Your task to perform on an android device: allow cookies in the chrome app Image 0: 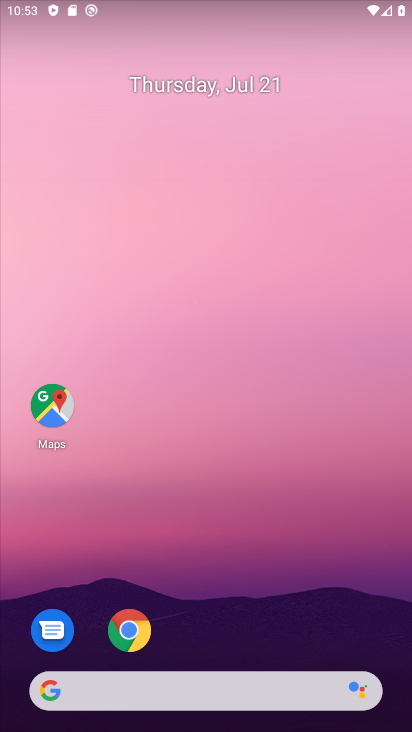
Step 0: click (129, 625)
Your task to perform on an android device: allow cookies in the chrome app Image 1: 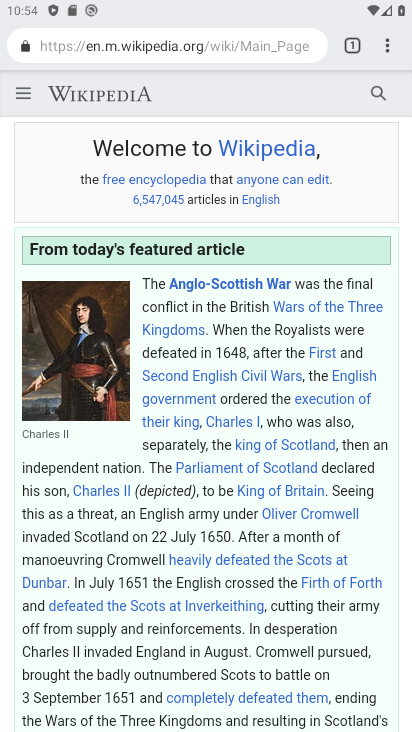
Step 1: click (387, 56)
Your task to perform on an android device: allow cookies in the chrome app Image 2: 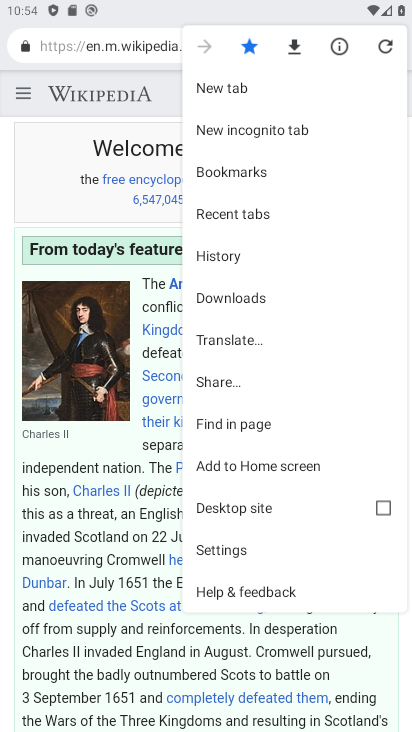
Step 2: click (226, 551)
Your task to perform on an android device: allow cookies in the chrome app Image 3: 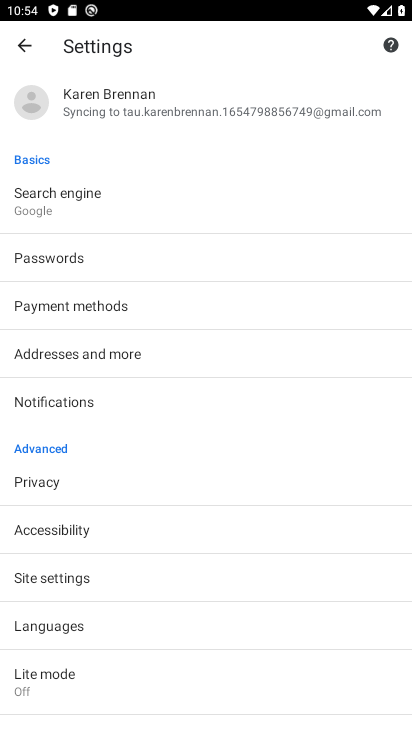
Step 3: click (76, 578)
Your task to perform on an android device: allow cookies in the chrome app Image 4: 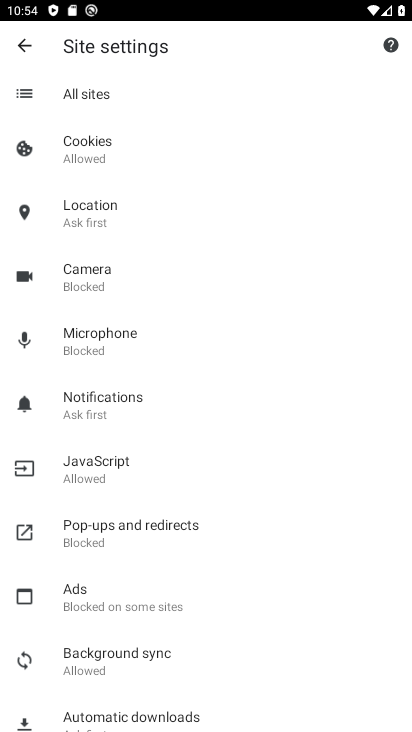
Step 4: click (81, 148)
Your task to perform on an android device: allow cookies in the chrome app Image 5: 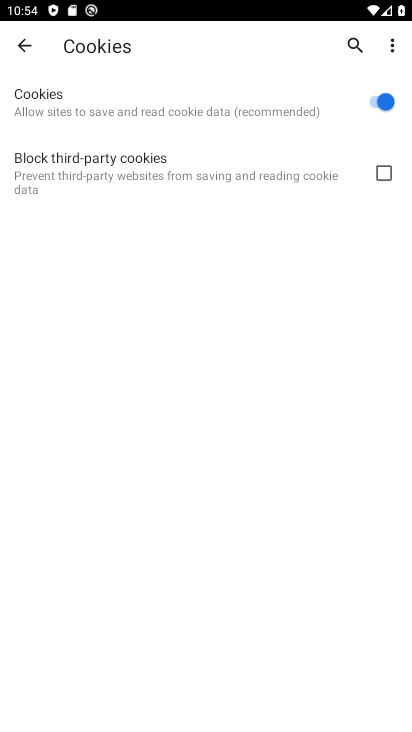
Step 5: task complete